Your task to perform on an android device: Open Youtube and go to "Your channel" Image 0: 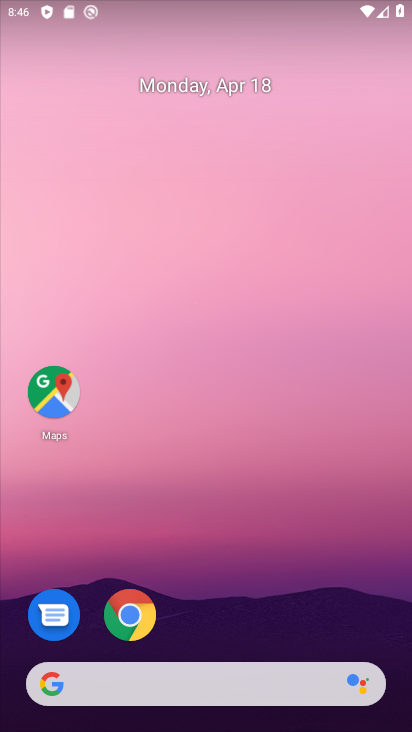
Step 0: drag from (333, 521) to (363, 64)
Your task to perform on an android device: Open Youtube and go to "Your channel" Image 1: 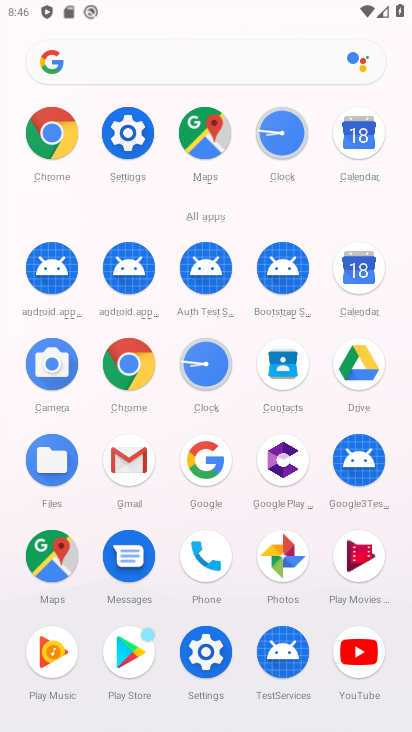
Step 1: click (351, 656)
Your task to perform on an android device: Open Youtube and go to "Your channel" Image 2: 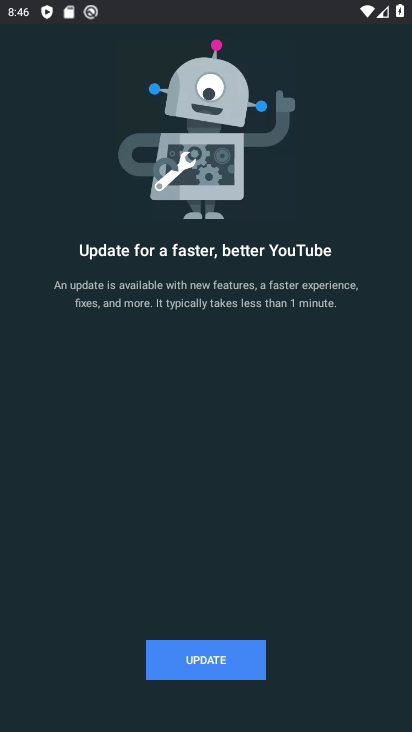
Step 2: click (232, 662)
Your task to perform on an android device: Open Youtube and go to "Your channel" Image 3: 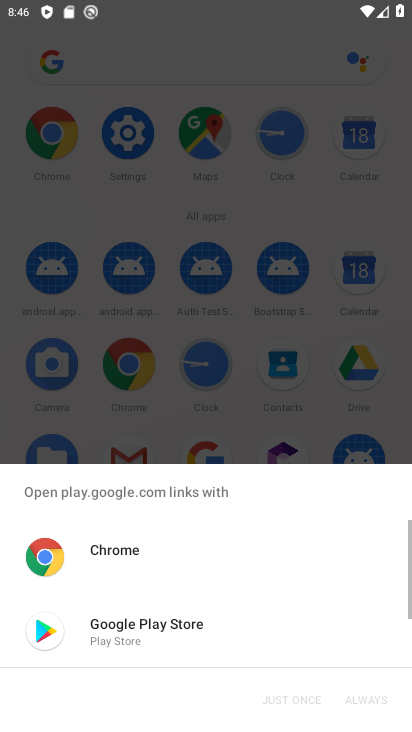
Step 3: click (180, 622)
Your task to perform on an android device: Open Youtube and go to "Your channel" Image 4: 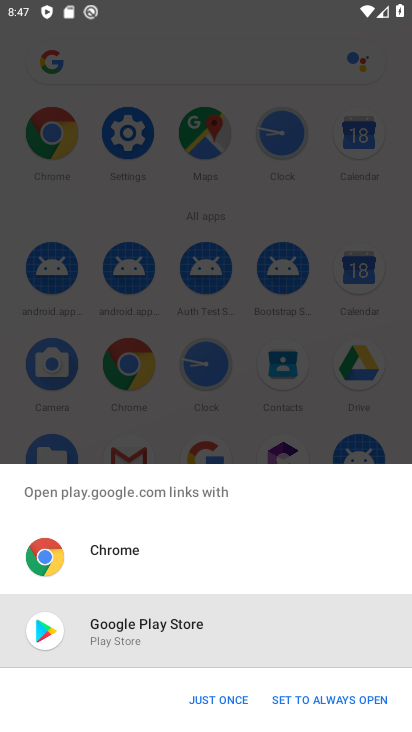
Step 4: click (208, 697)
Your task to perform on an android device: Open Youtube and go to "Your channel" Image 5: 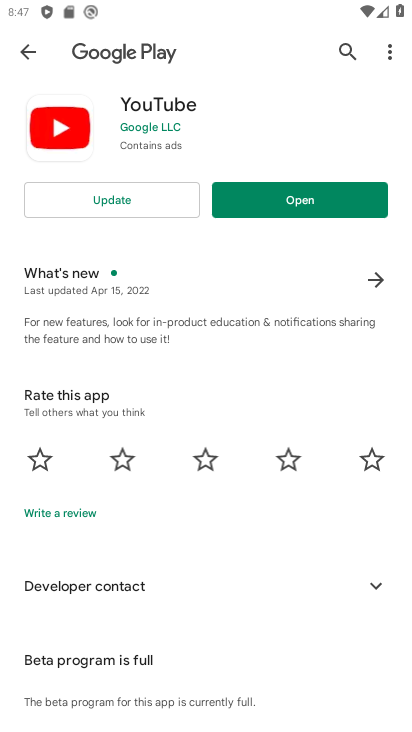
Step 5: click (144, 201)
Your task to perform on an android device: Open Youtube and go to "Your channel" Image 6: 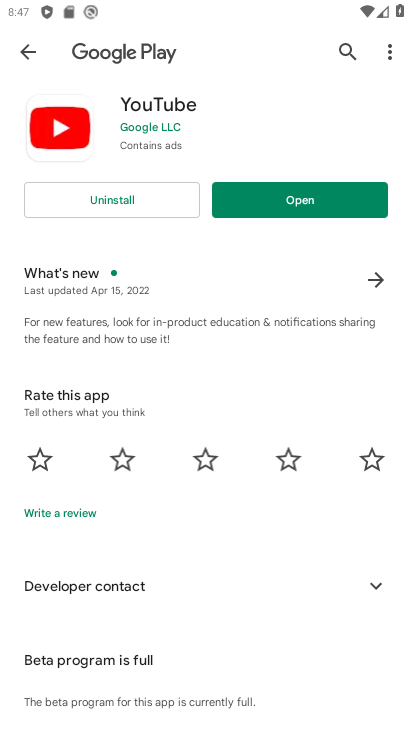
Step 6: click (277, 201)
Your task to perform on an android device: Open Youtube and go to "Your channel" Image 7: 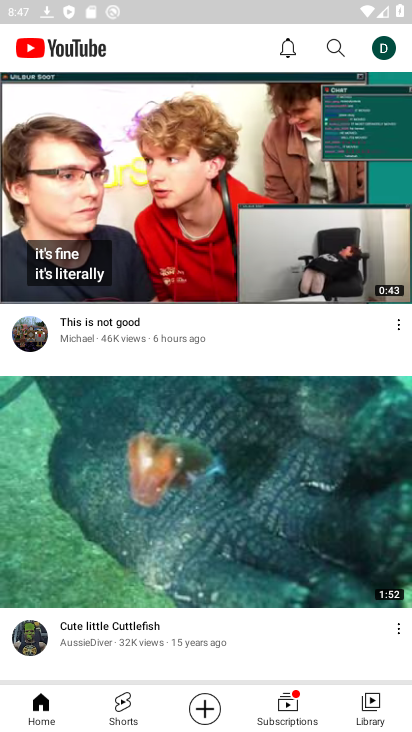
Step 7: click (386, 46)
Your task to perform on an android device: Open Youtube and go to "Your channel" Image 8: 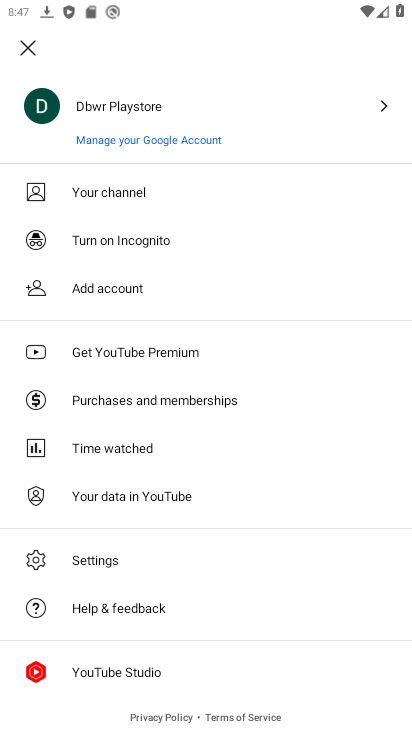
Step 8: click (116, 193)
Your task to perform on an android device: Open Youtube and go to "Your channel" Image 9: 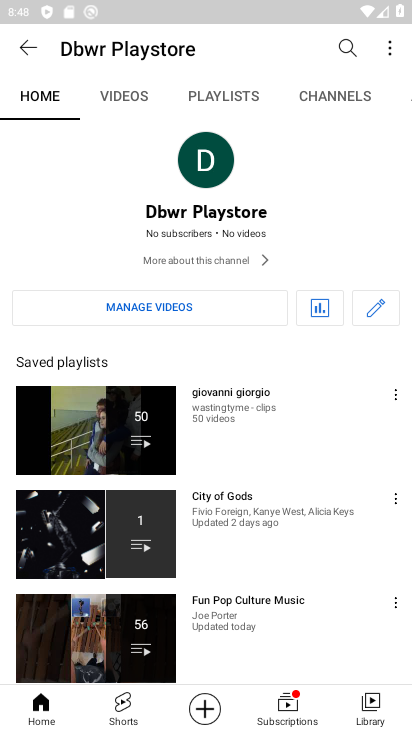
Step 9: task complete